Your task to perform on an android device: choose inbox layout in the gmail app Image 0: 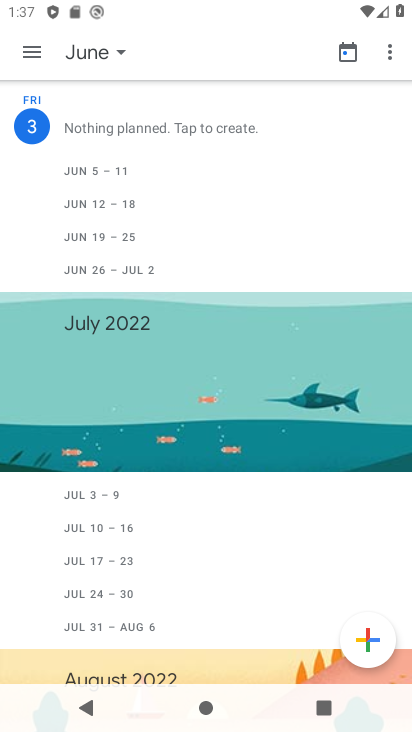
Step 0: press home button
Your task to perform on an android device: choose inbox layout in the gmail app Image 1: 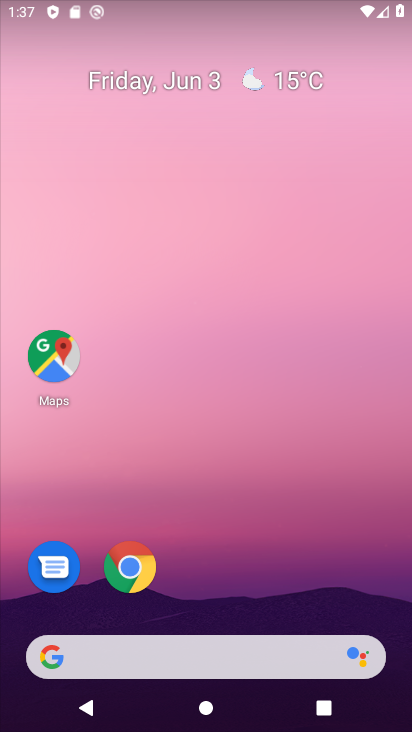
Step 1: drag from (185, 620) to (308, 76)
Your task to perform on an android device: choose inbox layout in the gmail app Image 2: 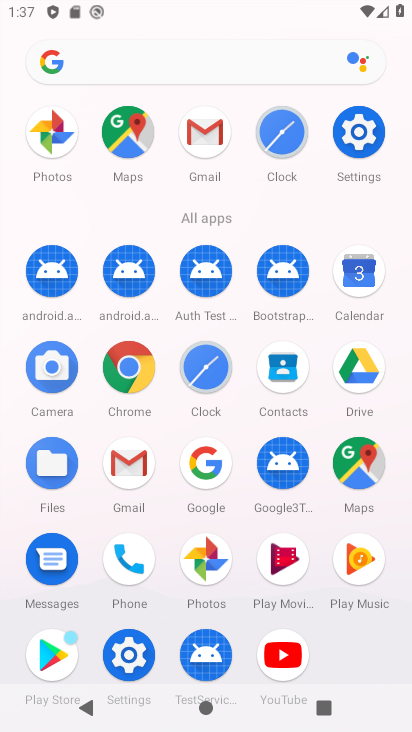
Step 2: click (128, 461)
Your task to perform on an android device: choose inbox layout in the gmail app Image 3: 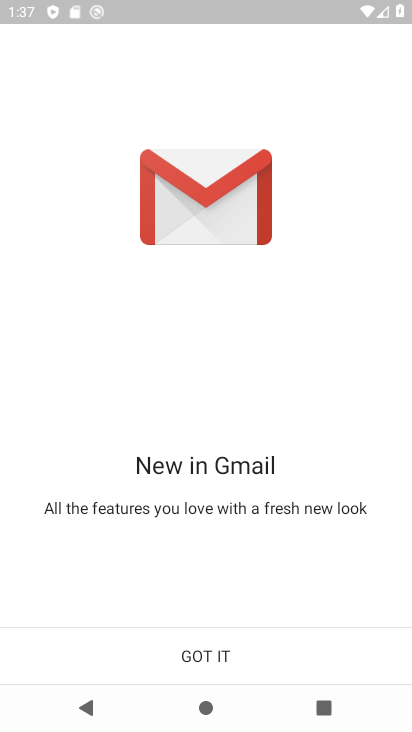
Step 3: click (187, 666)
Your task to perform on an android device: choose inbox layout in the gmail app Image 4: 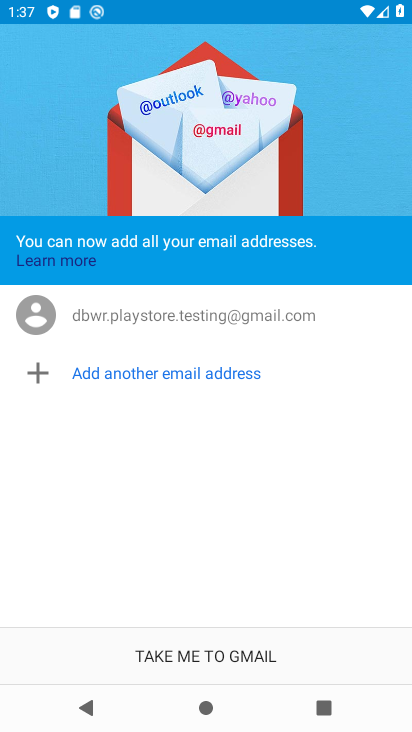
Step 4: click (194, 661)
Your task to perform on an android device: choose inbox layout in the gmail app Image 5: 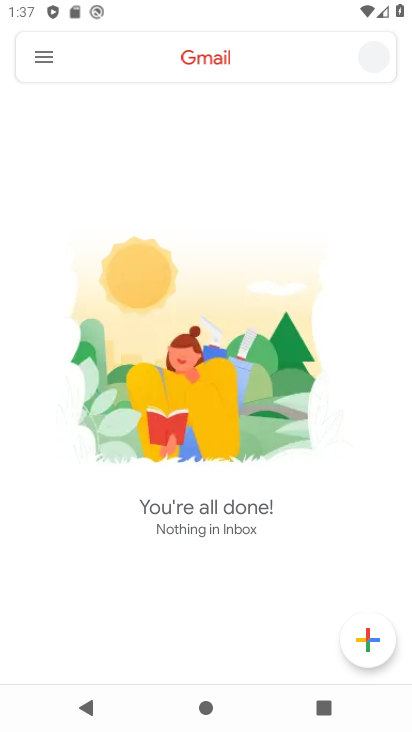
Step 5: click (55, 72)
Your task to perform on an android device: choose inbox layout in the gmail app Image 6: 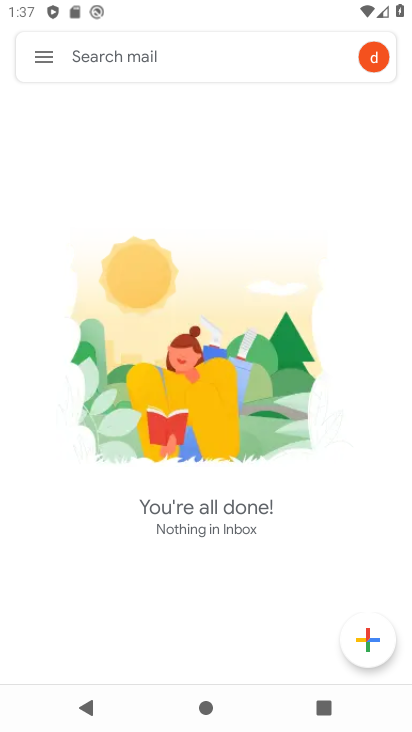
Step 6: click (52, 51)
Your task to perform on an android device: choose inbox layout in the gmail app Image 7: 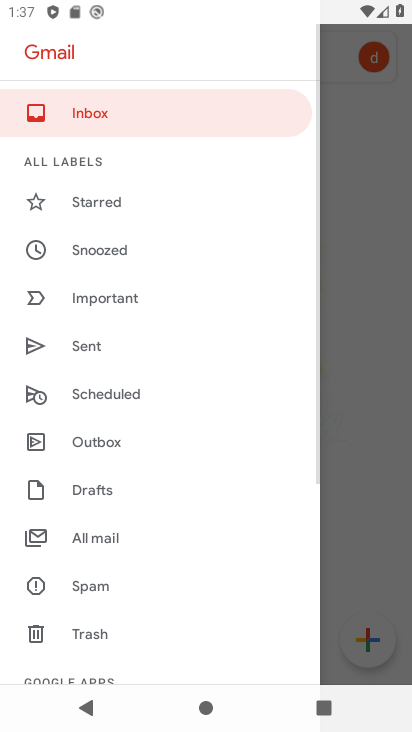
Step 7: drag from (143, 509) to (223, 234)
Your task to perform on an android device: choose inbox layout in the gmail app Image 8: 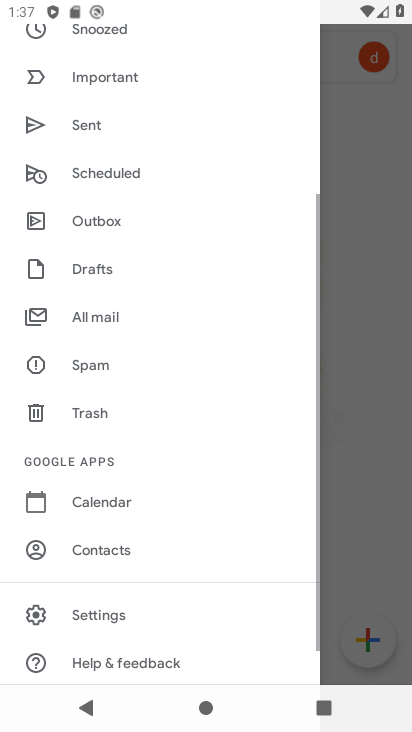
Step 8: click (134, 597)
Your task to perform on an android device: choose inbox layout in the gmail app Image 9: 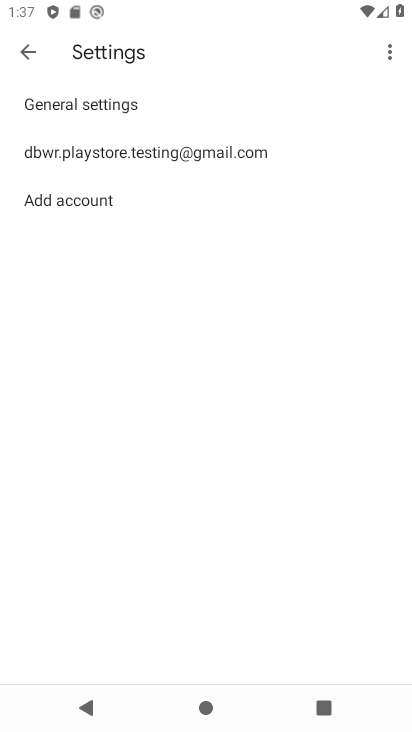
Step 9: click (185, 147)
Your task to perform on an android device: choose inbox layout in the gmail app Image 10: 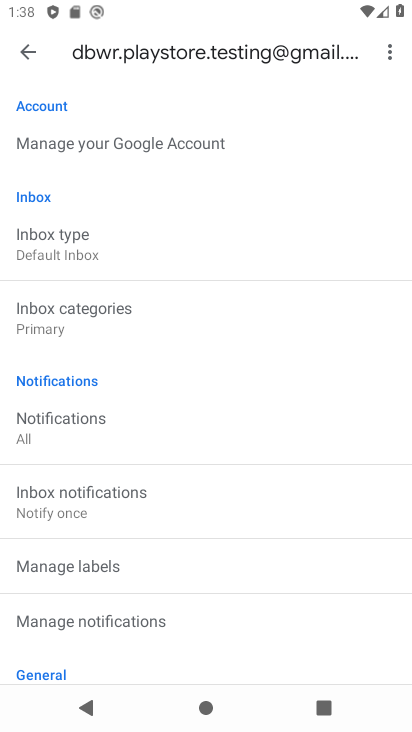
Step 10: click (216, 511)
Your task to perform on an android device: choose inbox layout in the gmail app Image 11: 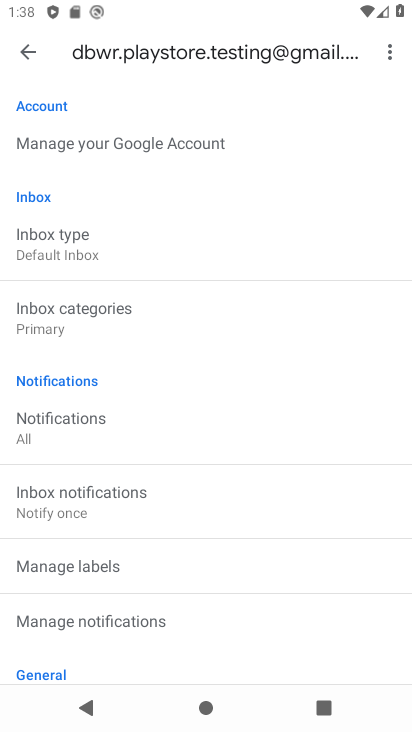
Step 11: click (136, 245)
Your task to perform on an android device: choose inbox layout in the gmail app Image 12: 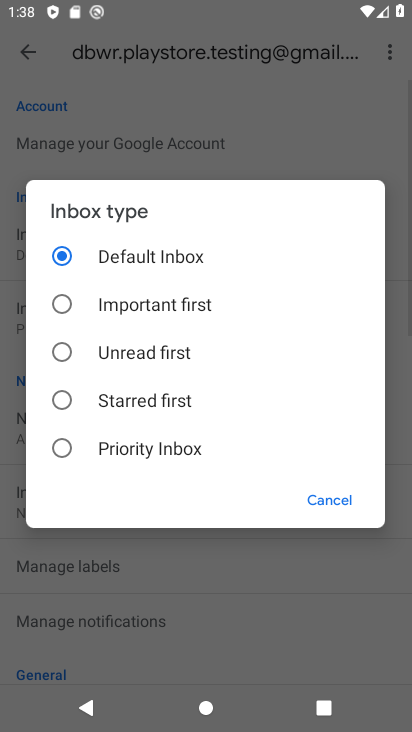
Step 12: click (184, 405)
Your task to perform on an android device: choose inbox layout in the gmail app Image 13: 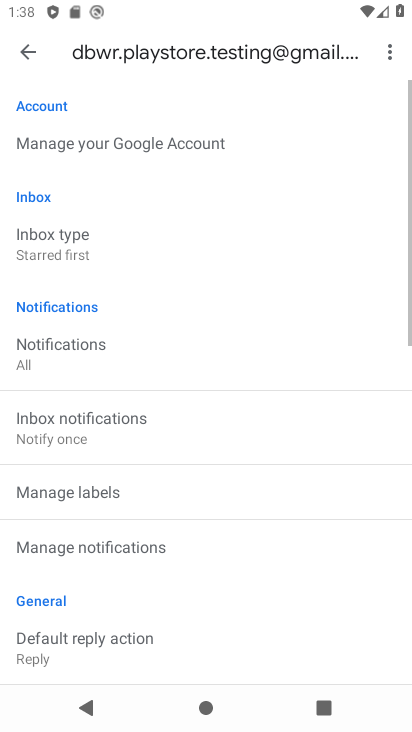
Step 13: task complete